Your task to perform on an android device: Is it going to rain tomorrow? Image 0: 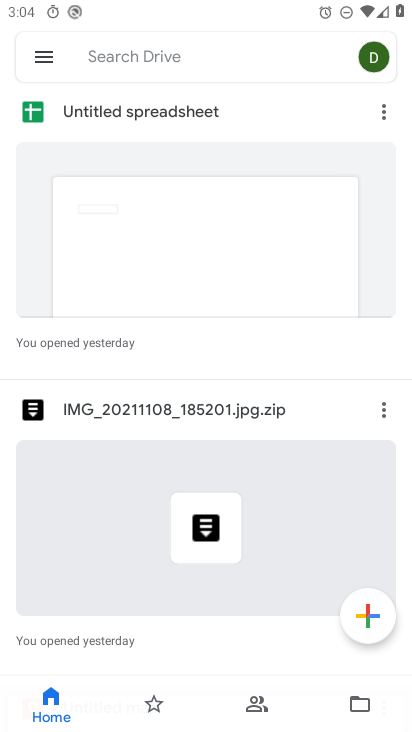
Step 0: press home button
Your task to perform on an android device: Is it going to rain tomorrow? Image 1: 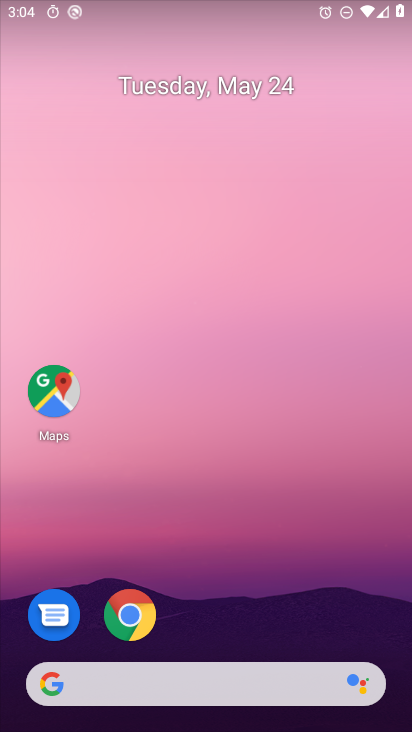
Step 1: drag from (175, 655) to (186, 229)
Your task to perform on an android device: Is it going to rain tomorrow? Image 2: 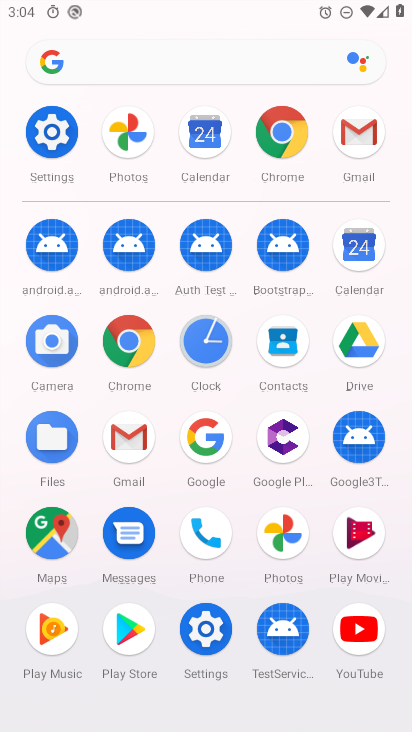
Step 2: click (208, 439)
Your task to perform on an android device: Is it going to rain tomorrow? Image 3: 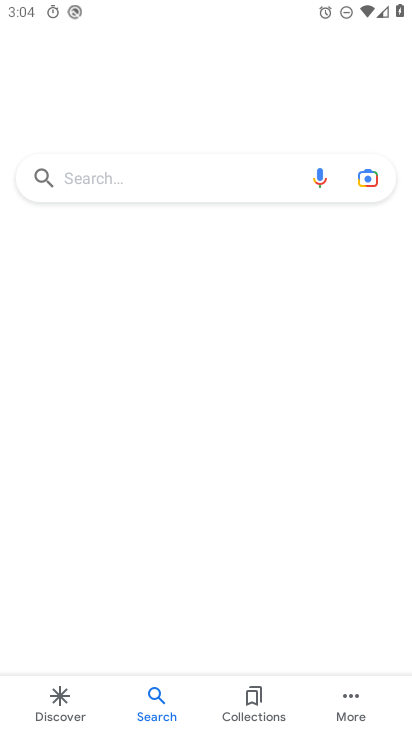
Step 3: click (119, 179)
Your task to perform on an android device: Is it going to rain tomorrow? Image 4: 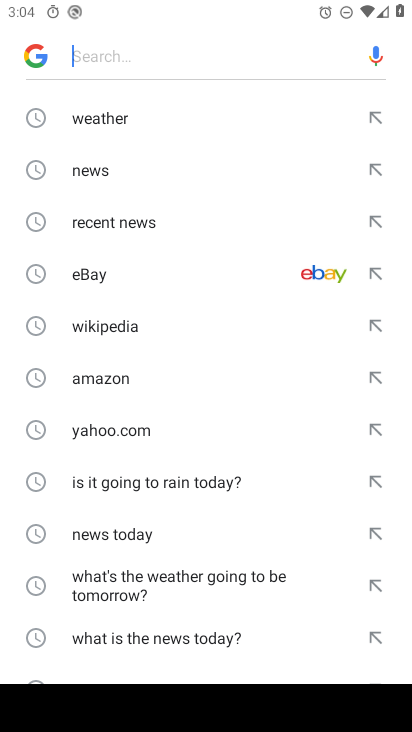
Step 4: click (137, 481)
Your task to perform on an android device: Is it going to rain tomorrow? Image 5: 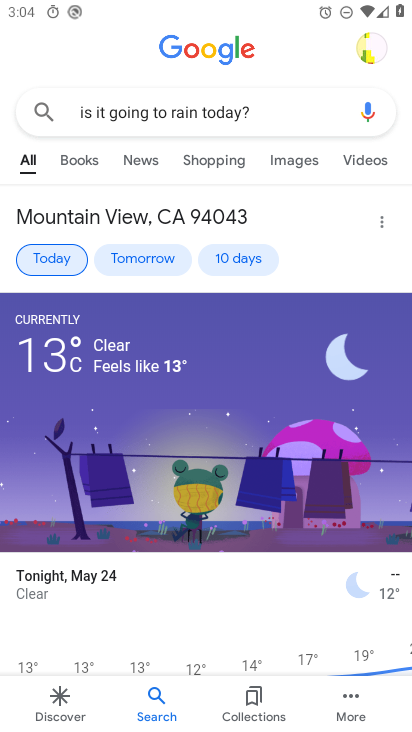
Step 5: click (144, 259)
Your task to perform on an android device: Is it going to rain tomorrow? Image 6: 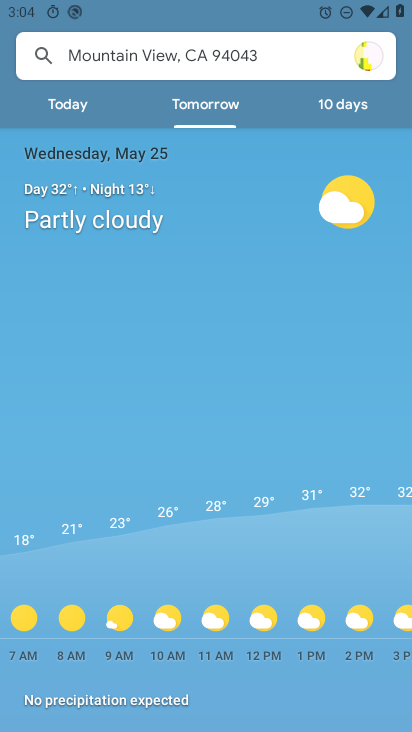
Step 6: task complete